Your task to perform on an android device: Do I have any events tomorrow? Image 0: 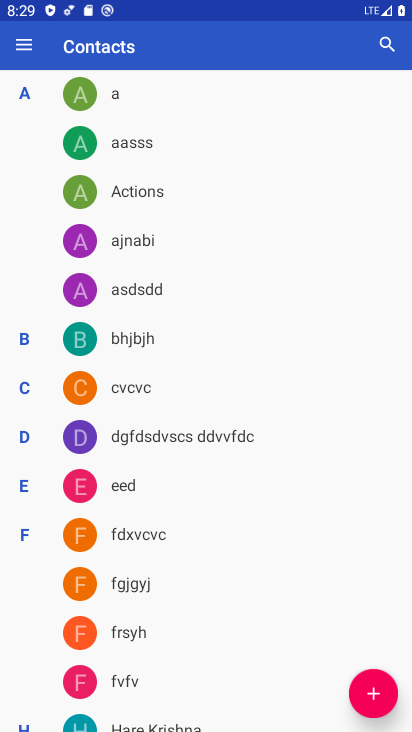
Step 0: press home button
Your task to perform on an android device: Do I have any events tomorrow? Image 1: 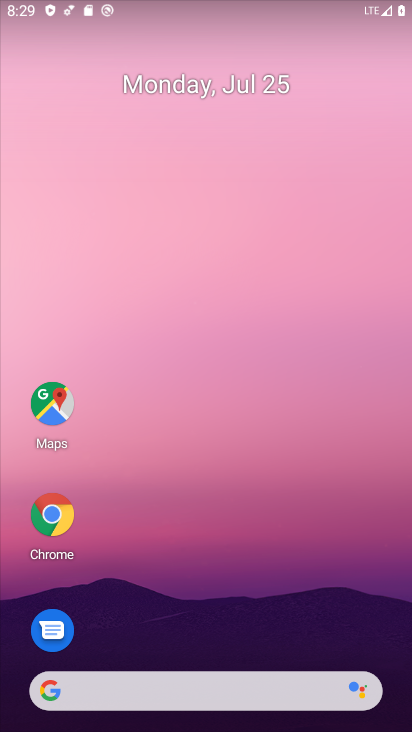
Step 1: drag from (16, 643) to (244, 62)
Your task to perform on an android device: Do I have any events tomorrow? Image 2: 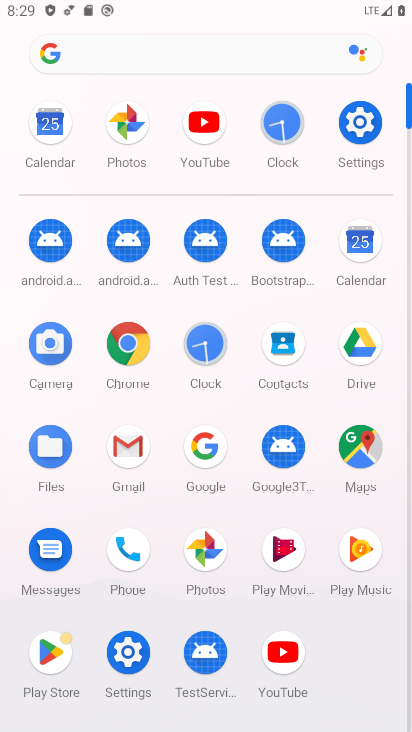
Step 2: click (375, 233)
Your task to perform on an android device: Do I have any events tomorrow? Image 3: 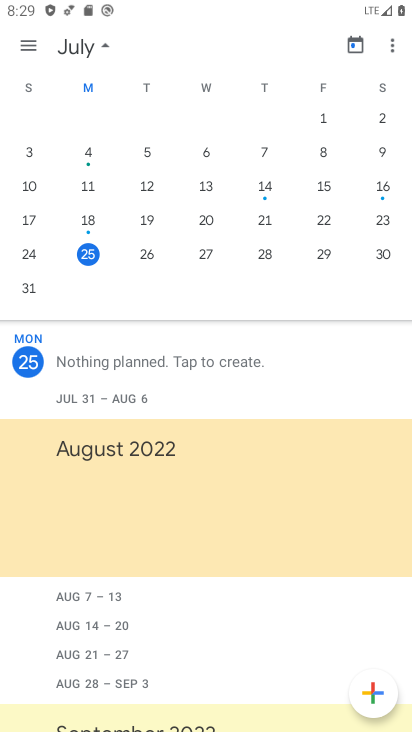
Step 3: task complete